Your task to perform on an android device: set the timer Image 0: 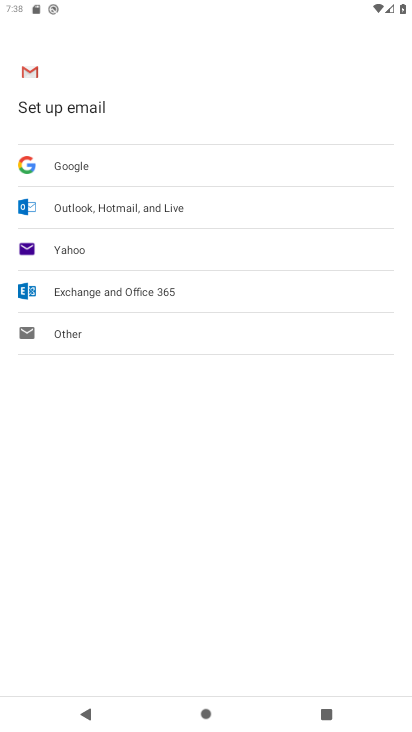
Step 0: press home button
Your task to perform on an android device: set the timer Image 1: 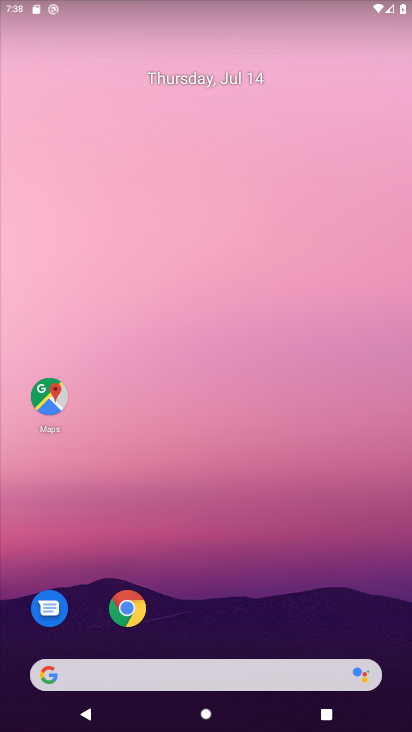
Step 1: drag from (252, 586) to (229, 8)
Your task to perform on an android device: set the timer Image 2: 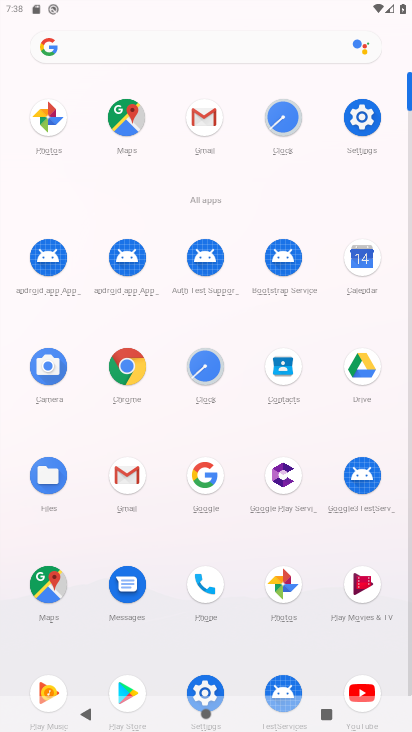
Step 2: click (288, 164)
Your task to perform on an android device: set the timer Image 3: 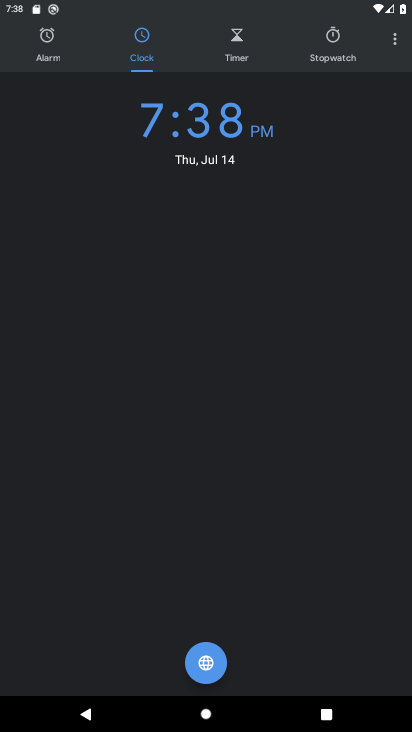
Step 3: click (227, 35)
Your task to perform on an android device: set the timer Image 4: 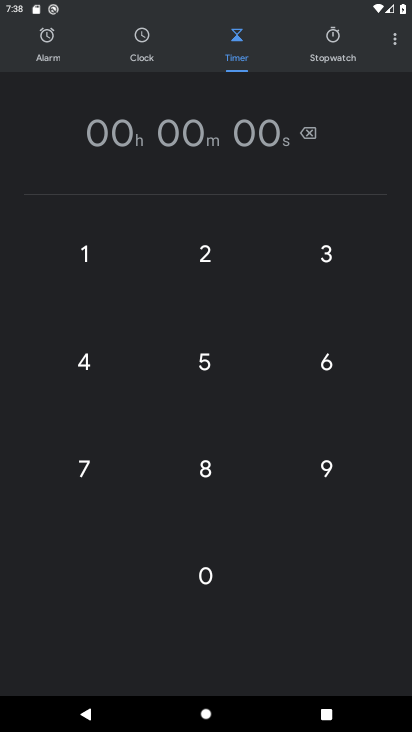
Step 4: click (216, 353)
Your task to perform on an android device: set the timer Image 5: 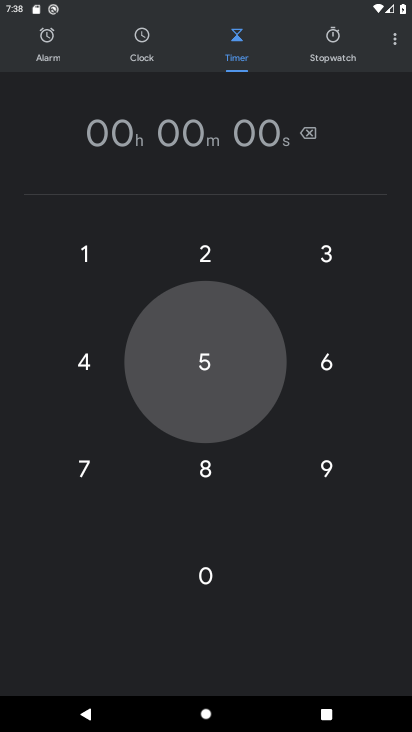
Step 5: click (216, 352)
Your task to perform on an android device: set the timer Image 6: 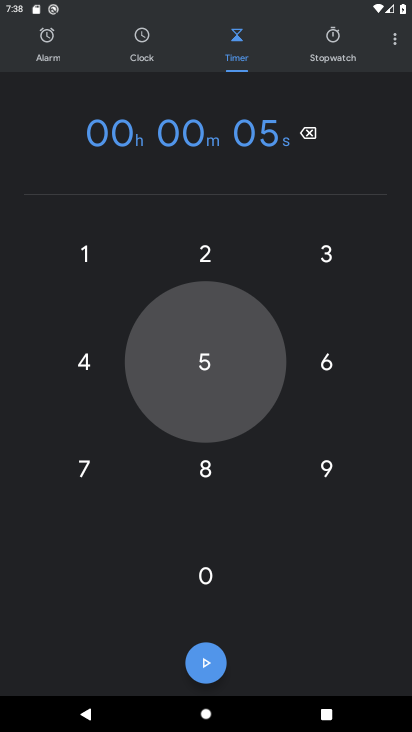
Step 6: click (216, 352)
Your task to perform on an android device: set the timer Image 7: 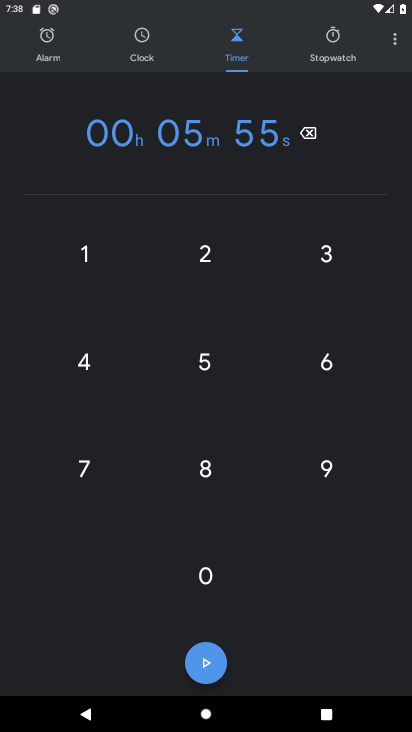
Step 7: click (216, 352)
Your task to perform on an android device: set the timer Image 8: 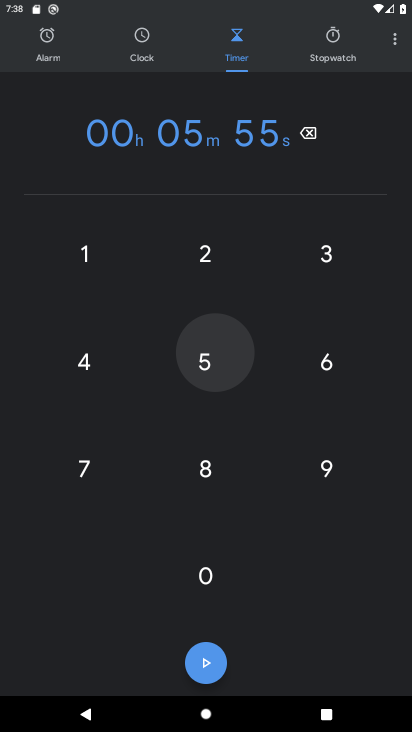
Step 8: click (216, 352)
Your task to perform on an android device: set the timer Image 9: 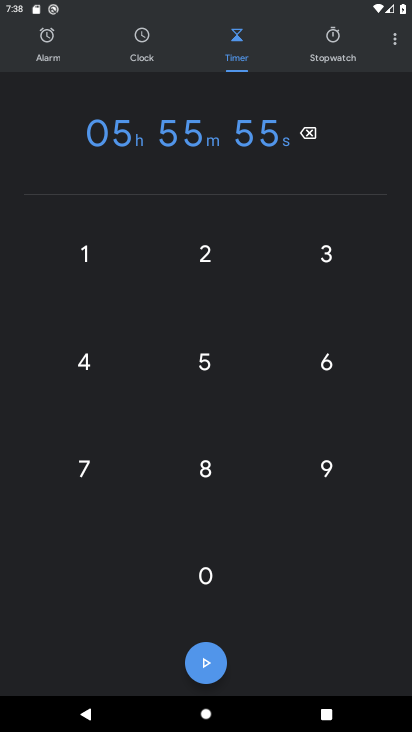
Step 9: click (216, 350)
Your task to perform on an android device: set the timer Image 10: 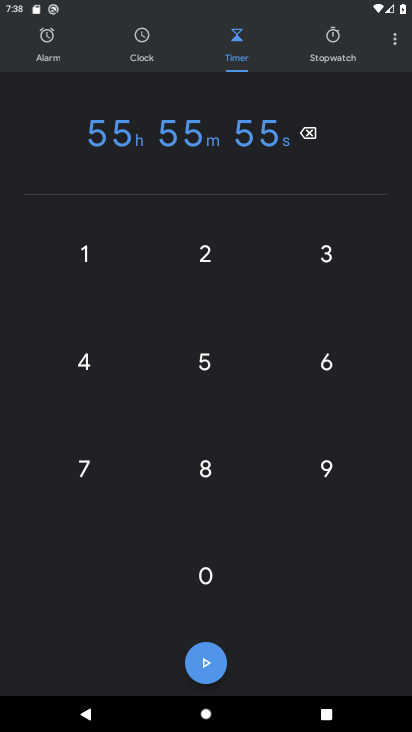
Step 10: click (209, 669)
Your task to perform on an android device: set the timer Image 11: 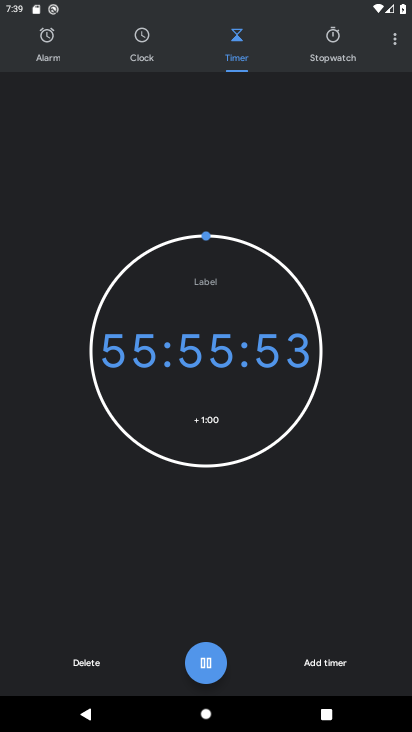
Step 11: task complete